Your task to perform on an android device: Add "razer kraken" to the cart on ebay Image 0: 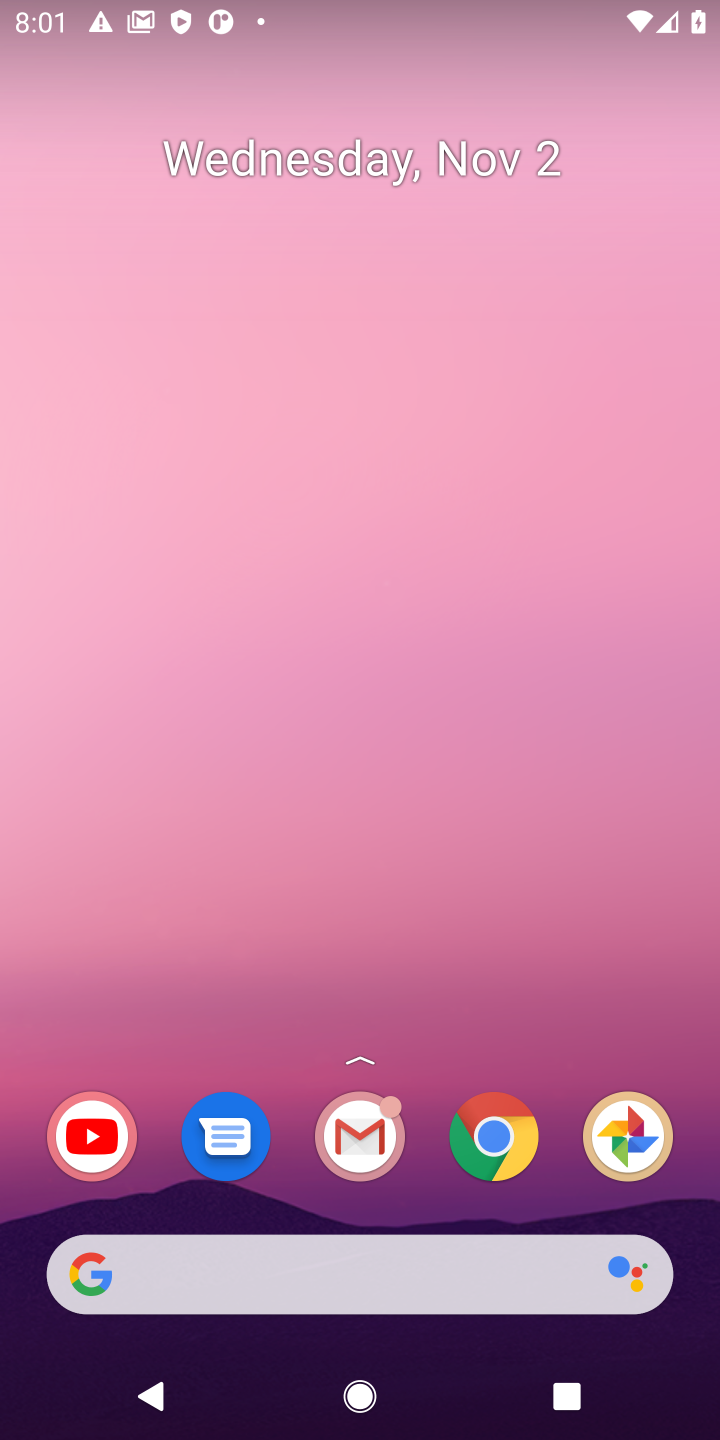
Step 0: drag from (199, 1217) to (266, 71)
Your task to perform on an android device: Add "razer kraken" to the cart on ebay Image 1: 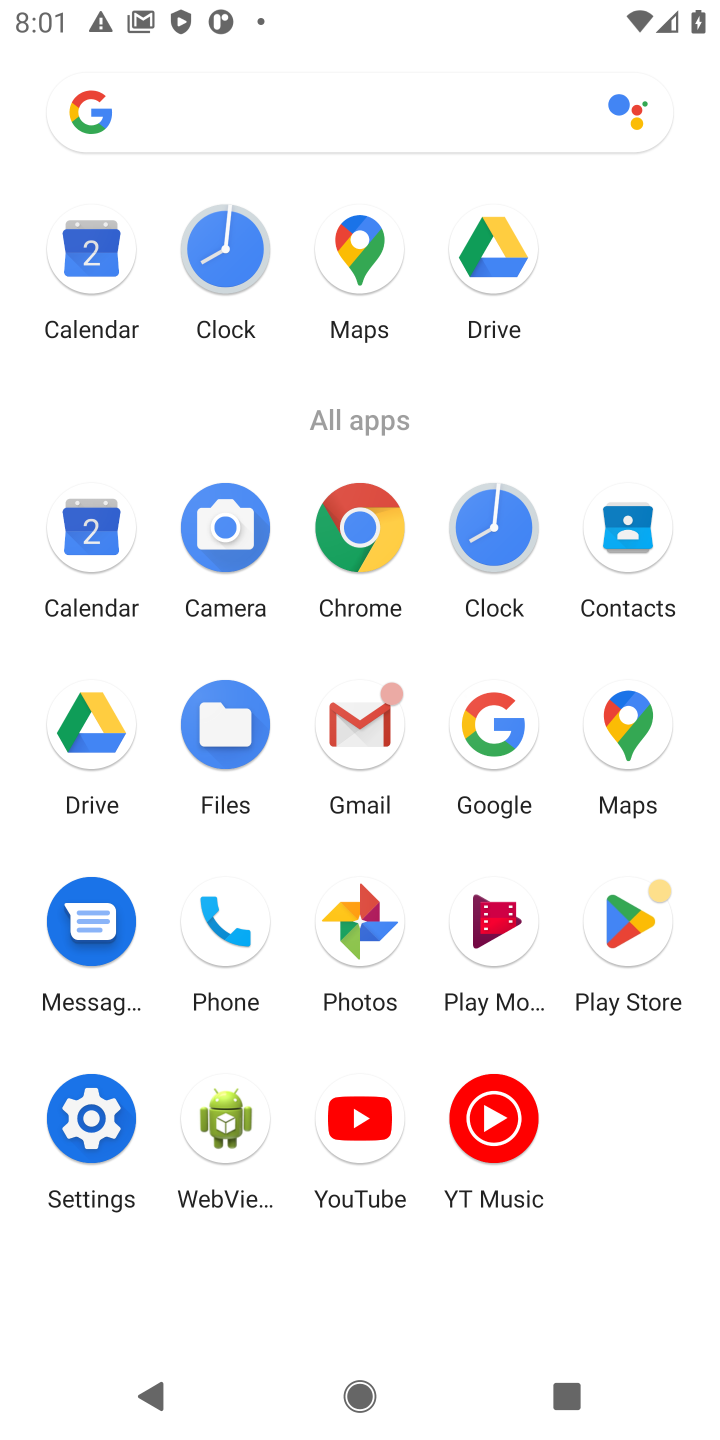
Step 1: click (496, 718)
Your task to perform on an android device: Add "razer kraken" to the cart on ebay Image 2: 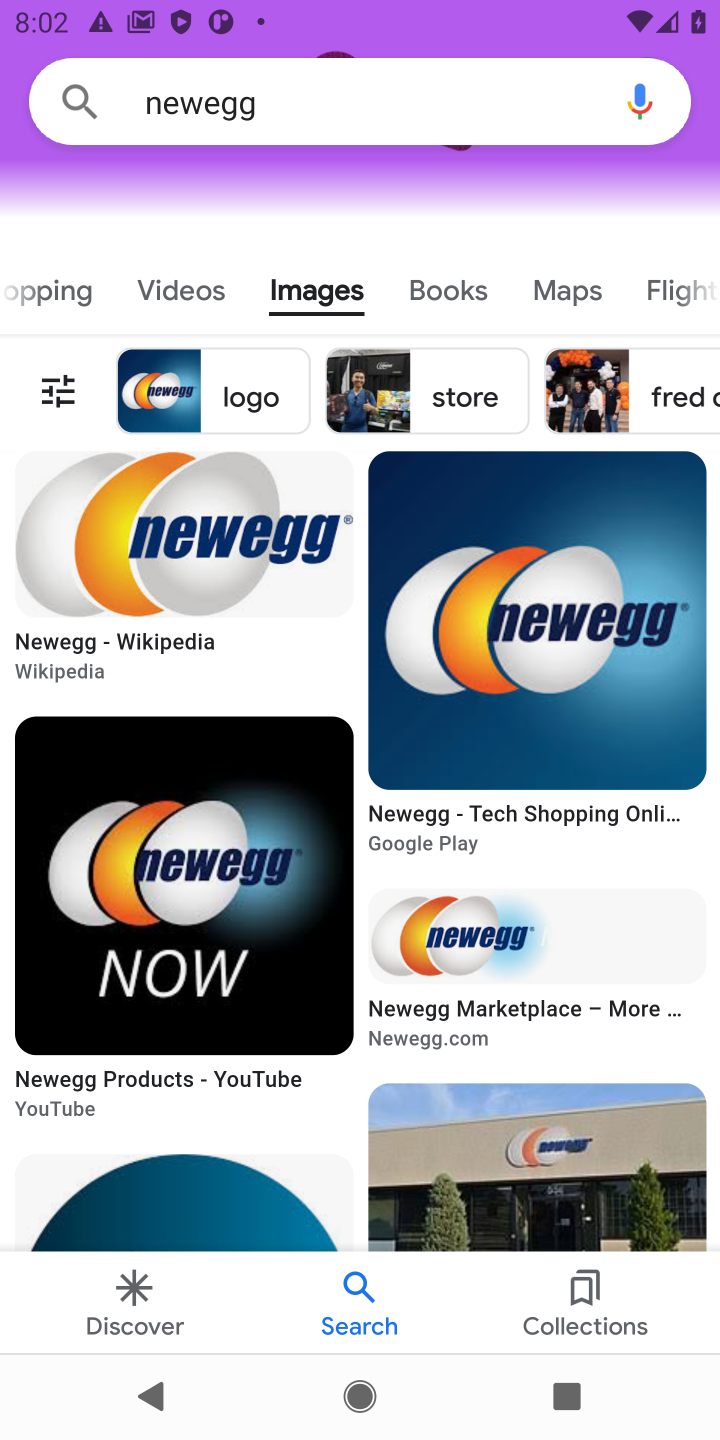
Step 2: click (392, 69)
Your task to perform on an android device: Add "razer kraken" to the cart on ebay Image 3: 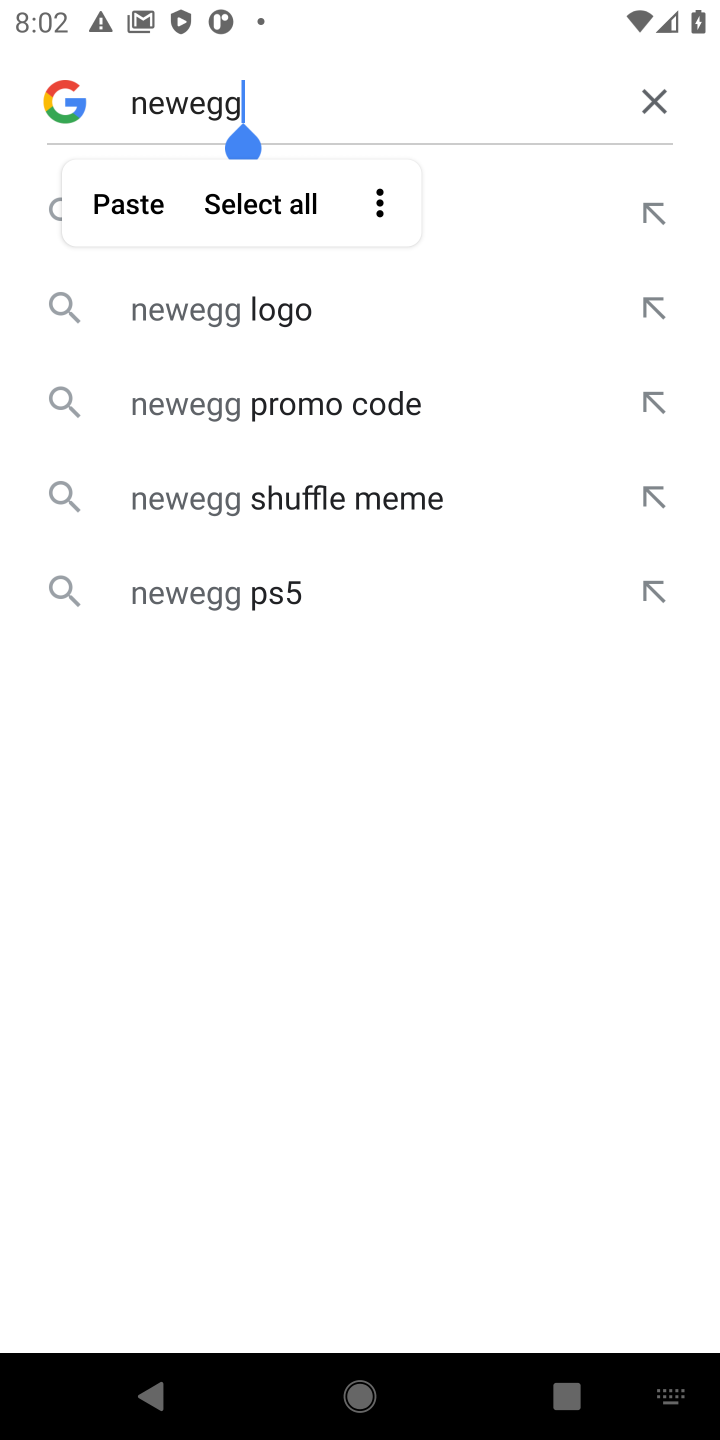
Step 3: click (648, 94)
Your task to perform on an android device: Add "razer kraken" to the cart on ebay Image 4: 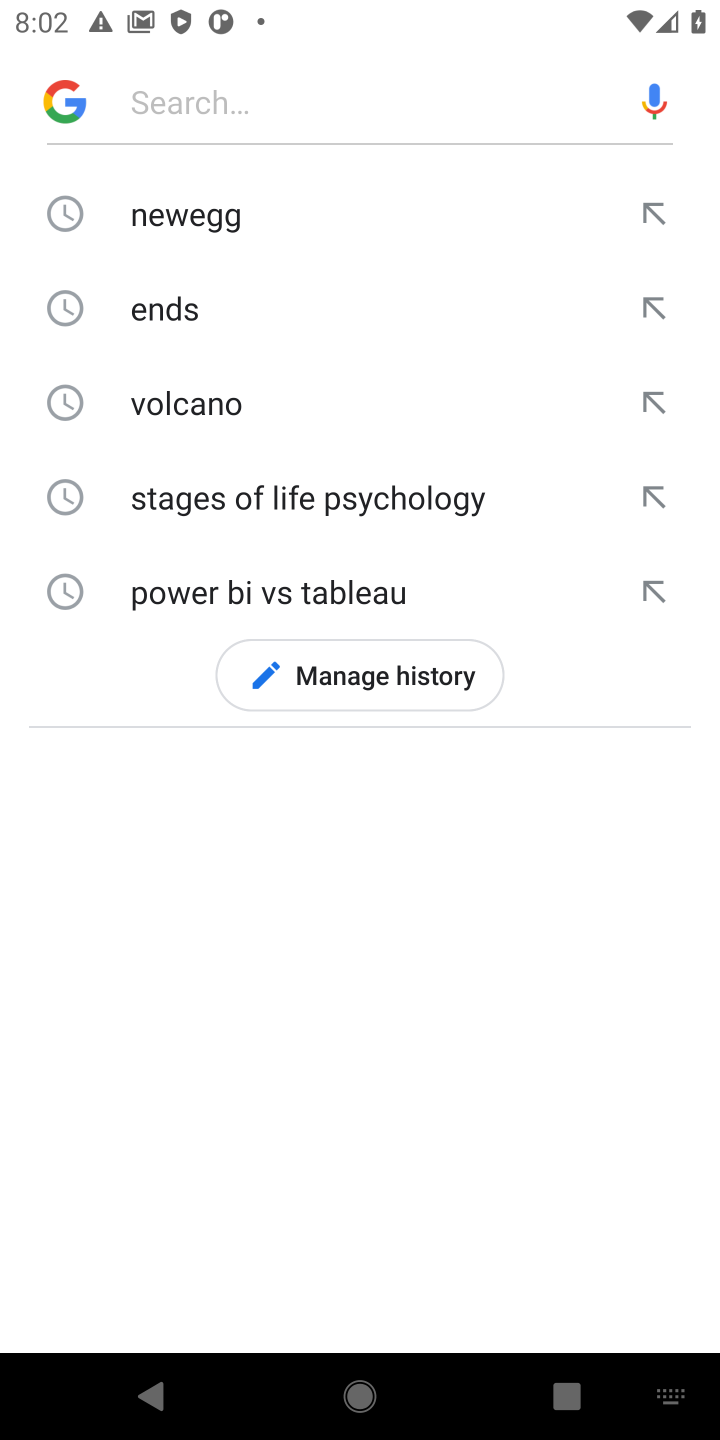
Step 4: click (254, 83)
Your task to perform on an android device: Add "razer kraken" to the cart on ebay Image 5: 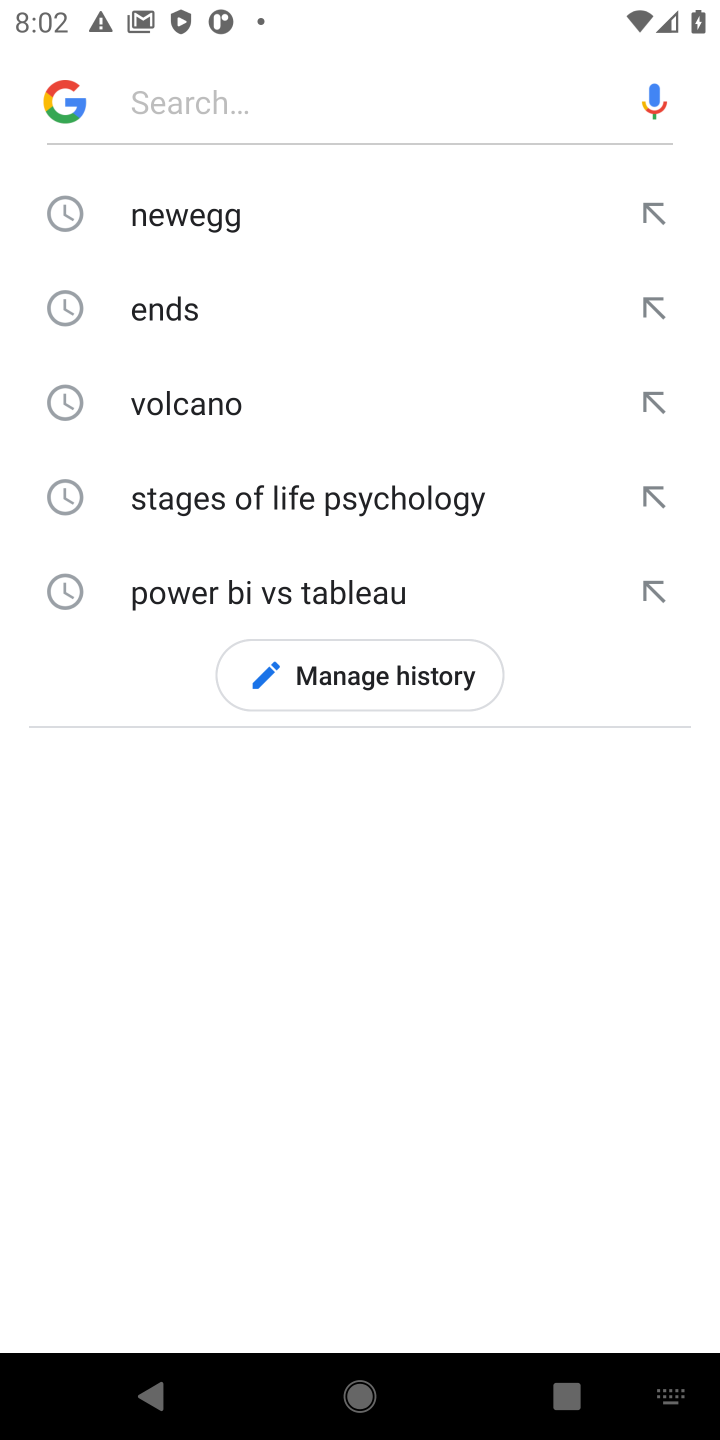
Step 5: type "ebay "
Your task to perform on an android device: Add "razer kraken" to the cart on ebay Image 6: 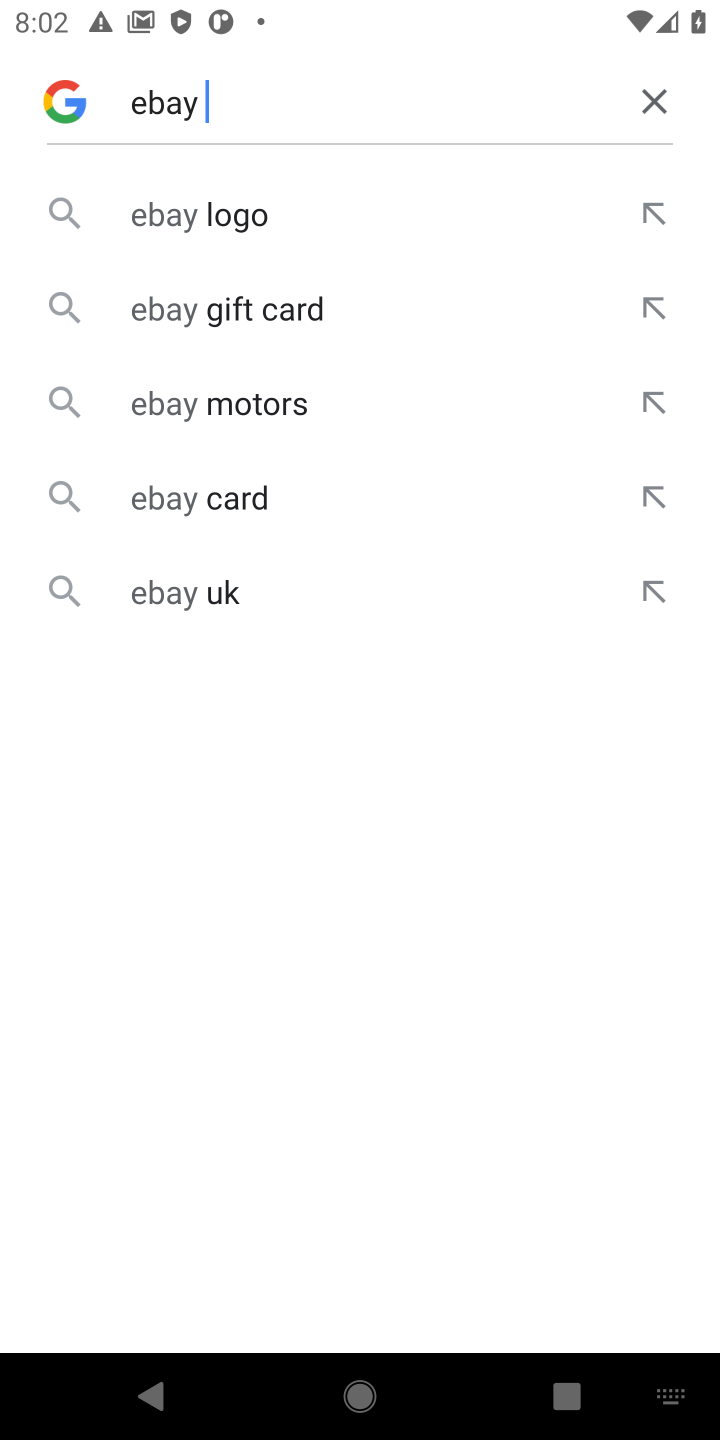
Step 6: click (206, 605)
Your task to perform on an android device: Add "razer kraken" to the cart on ebay Image 7: 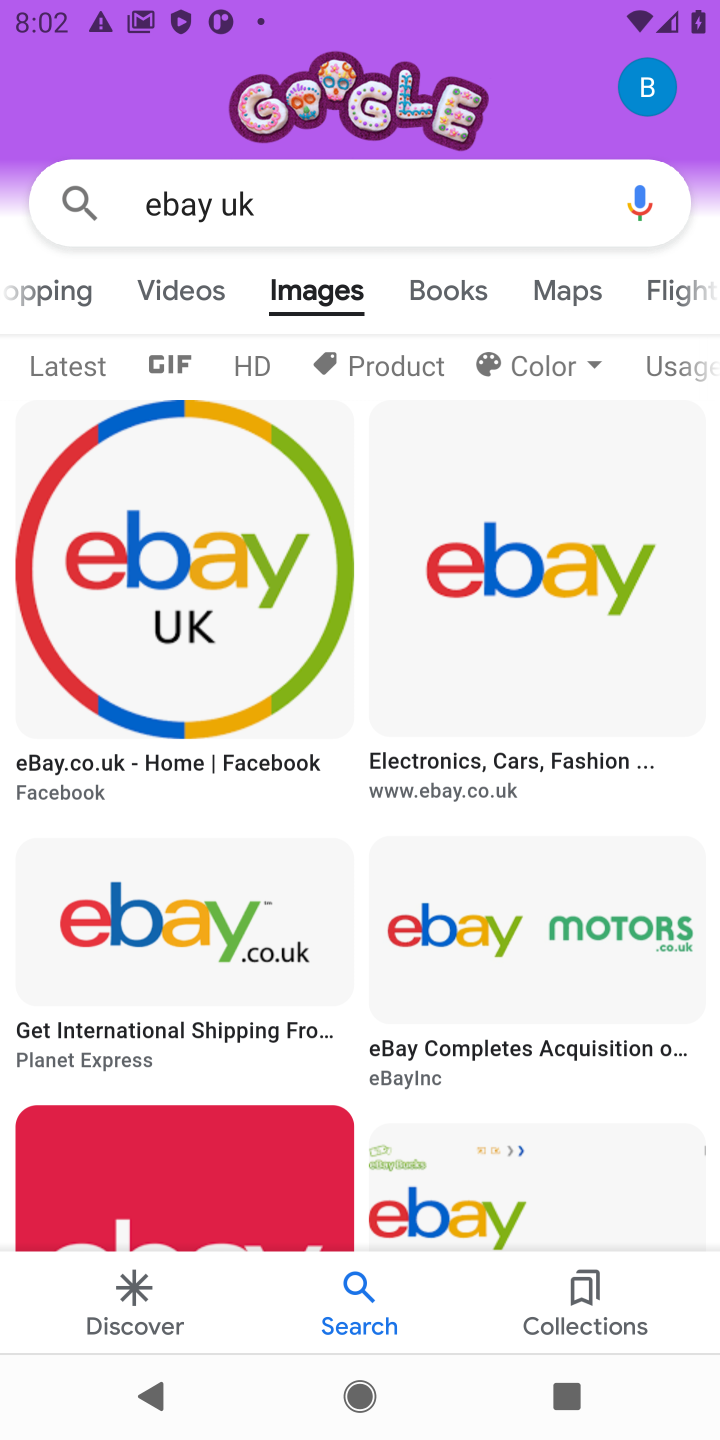
Step 7: click (23, 300)
Your task to perform on an android device: Add "razer kraken" to the cart on ebay Image 8: 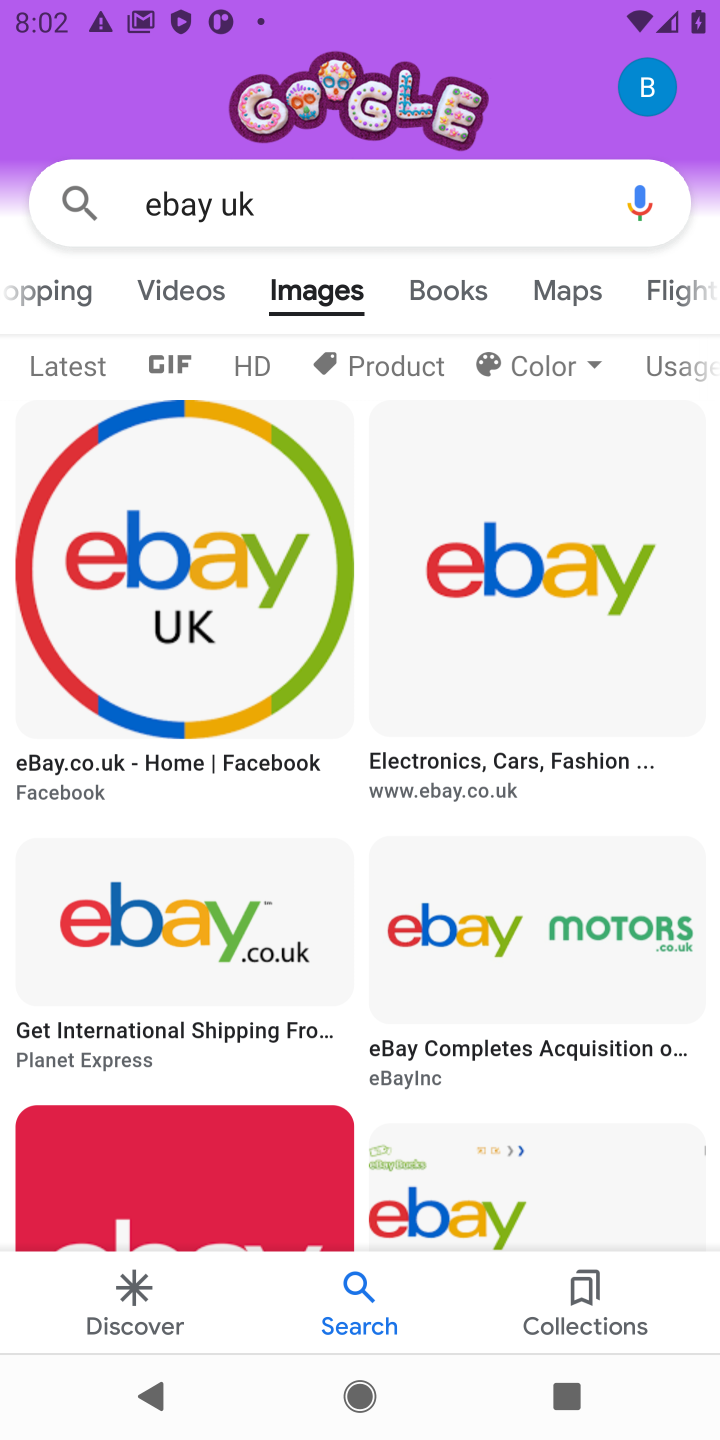
Step 8: drag from (69, 297) to (559, 325)
Your task to perform on an android device: Add "razer kraken" to the cart on ebay Image 9: 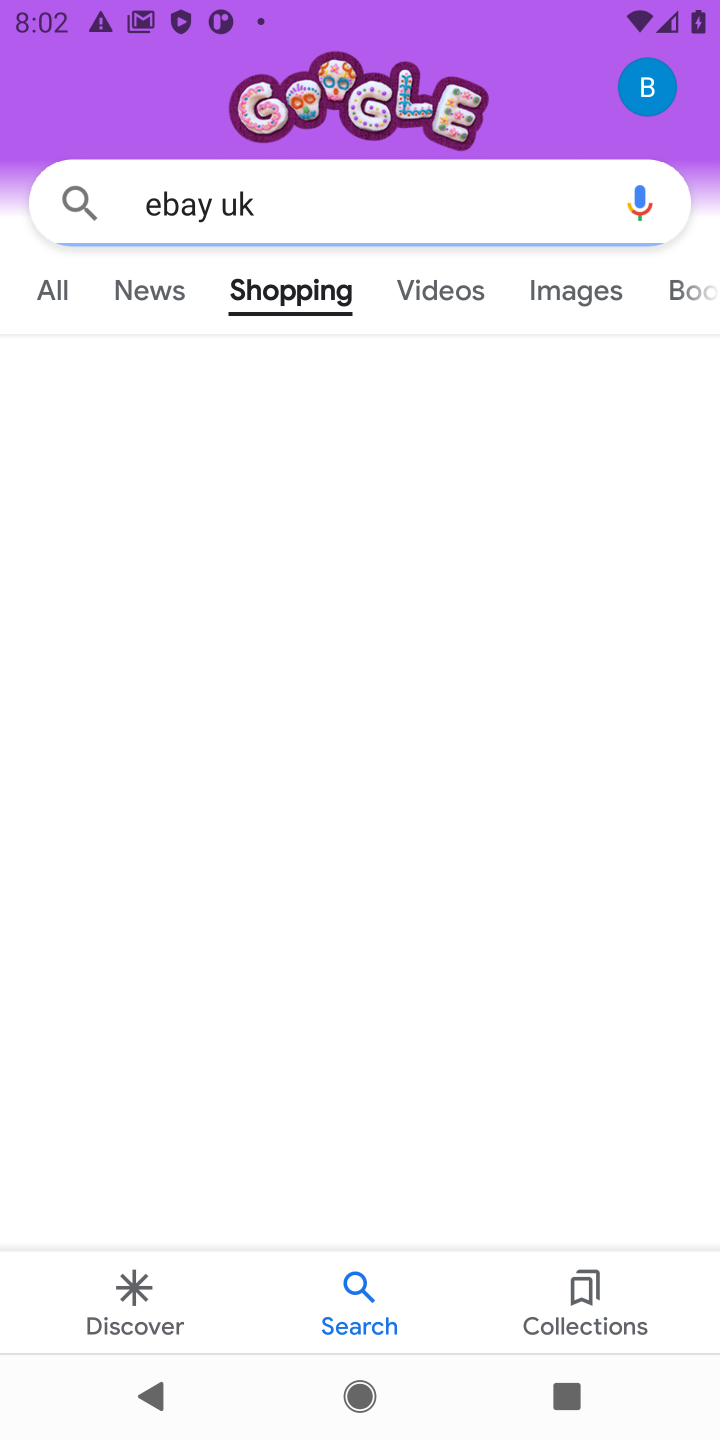
Step 9: click (59, 278)
Your task to perform on an android device: Add "razer kraken" to the cart on ebay Image 10: 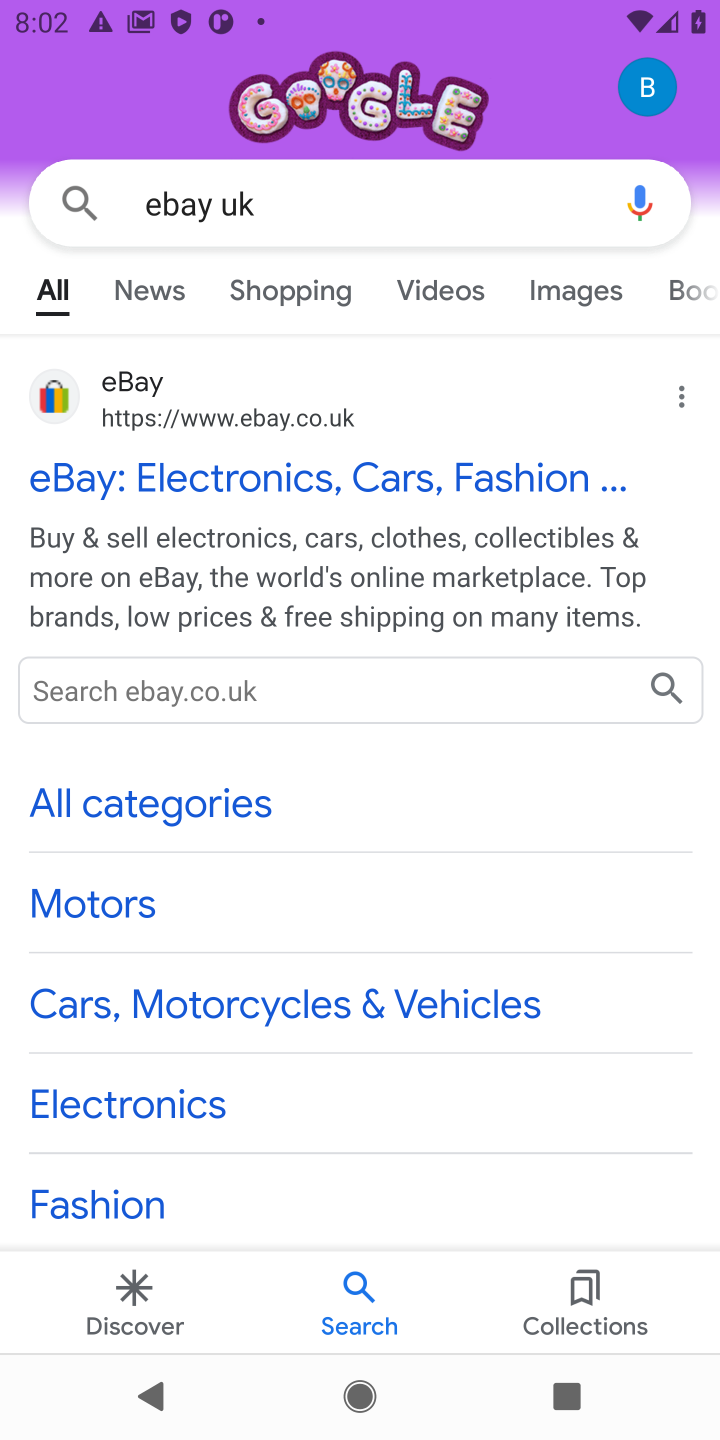
Step 10: click (57, 395)
Your task to perform on an android device: Add "razer kraken" to the cart on ebay Image 11: 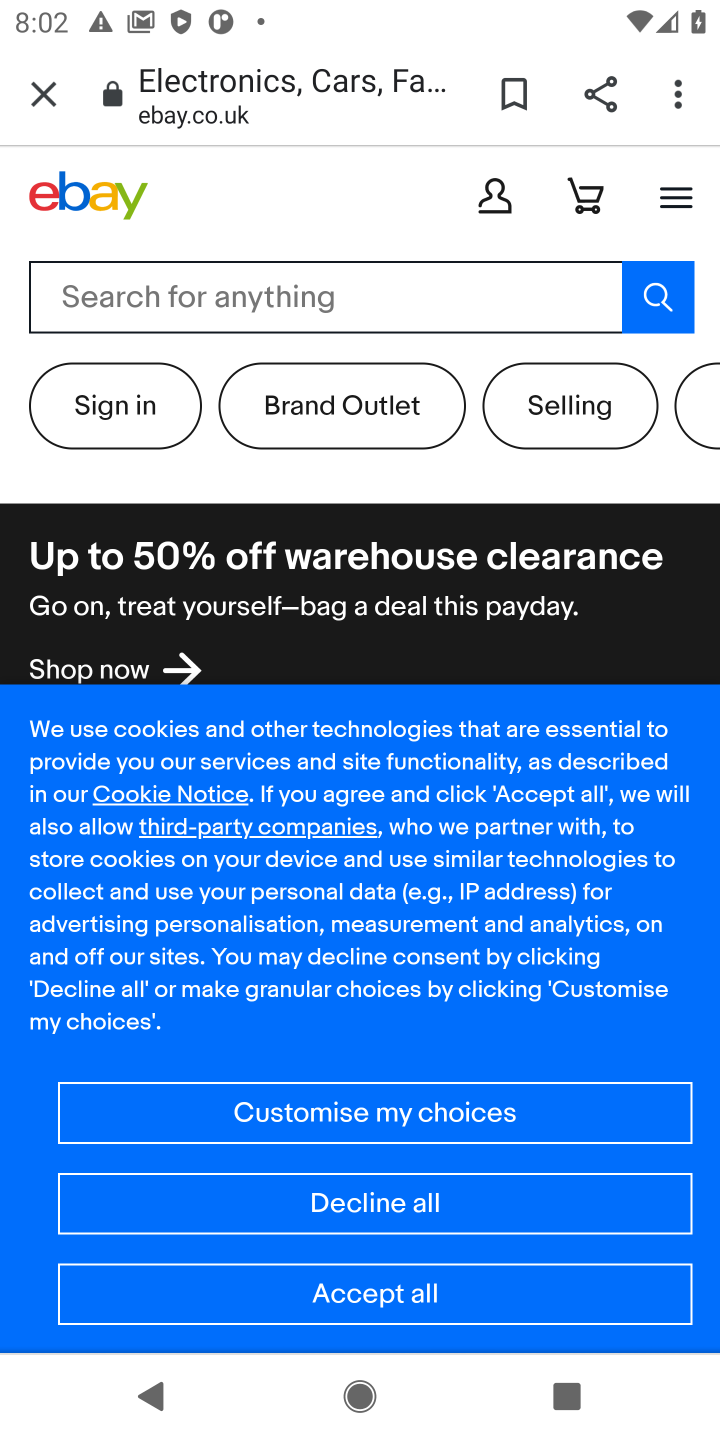
Step 11: click (347, 1298)
Your task to perform on an android device: Add "razer kraken" to the cart on ebay Image 12: 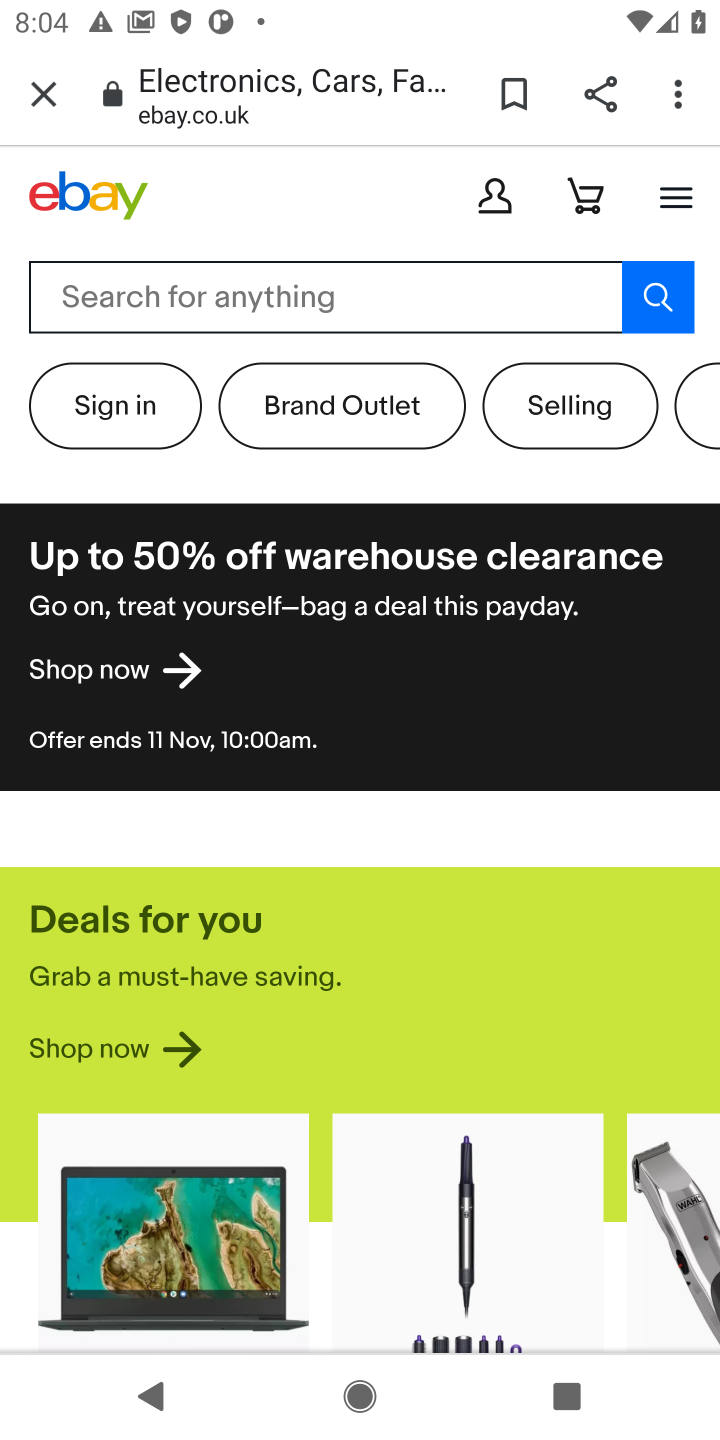
Step 12: click (447, 277)
Your task to perform on an android device: Add "razer kraken" to the cart on ebay Image 13: 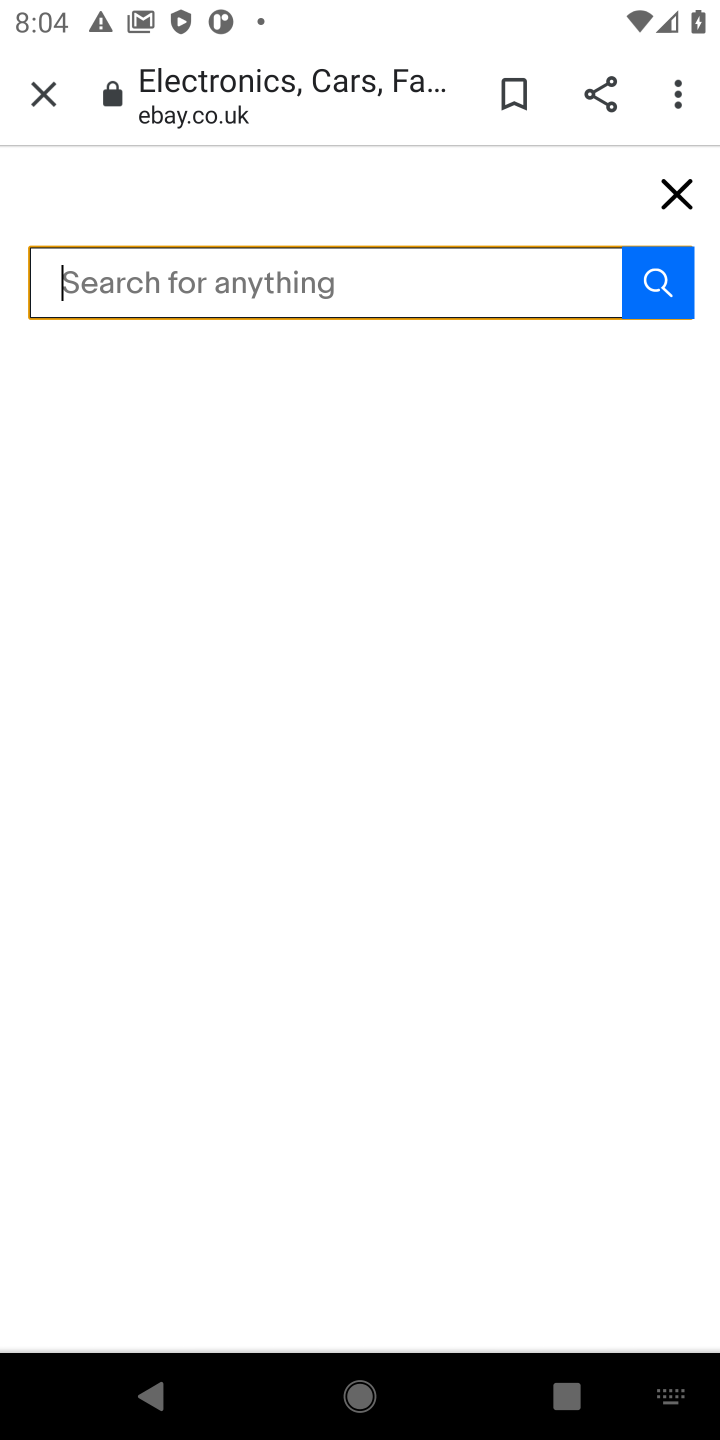
Step 13: type "razer kraken"  "
Your task to perform on an android device: Add "razer kraken" to the cart on ebay Image 14: 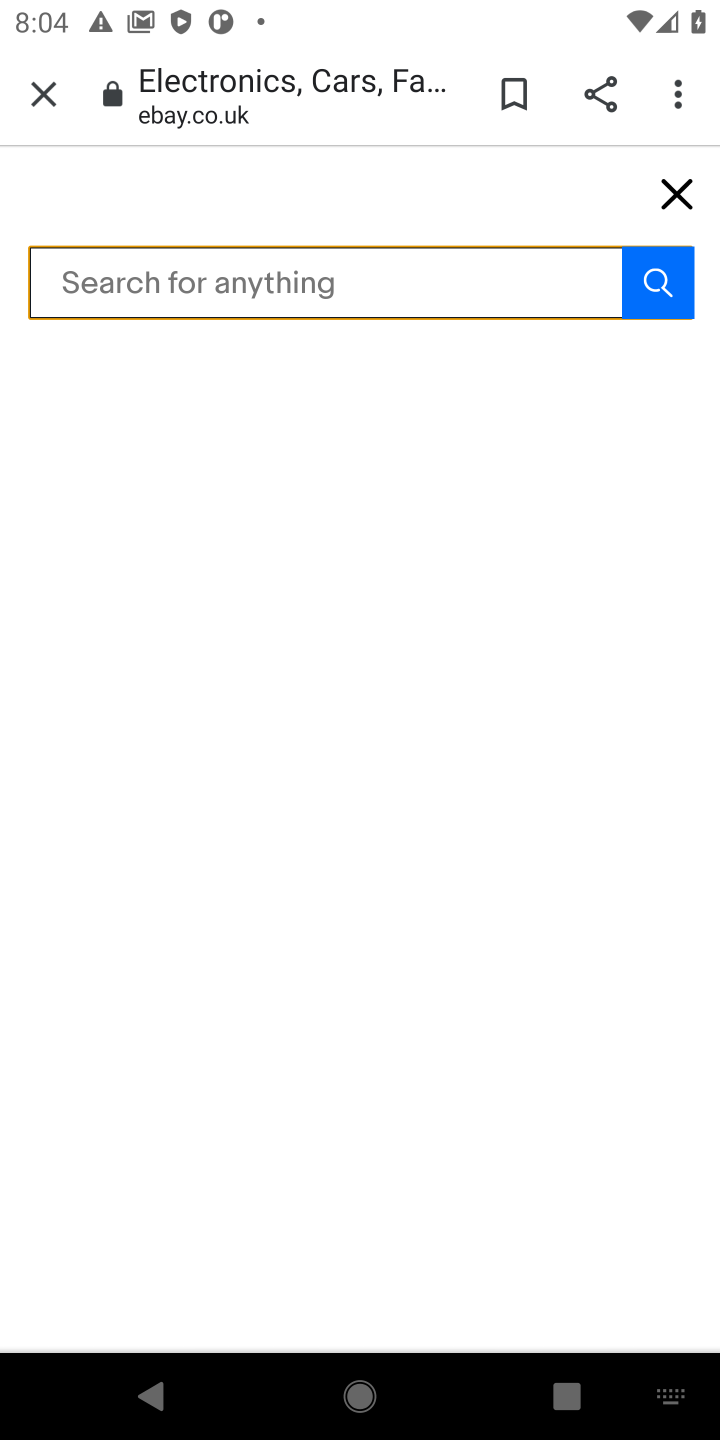
Step 14: click (507, 276)
Your task to perform on an android device: Add "razer kraken" to the cart on ebay Image 15: 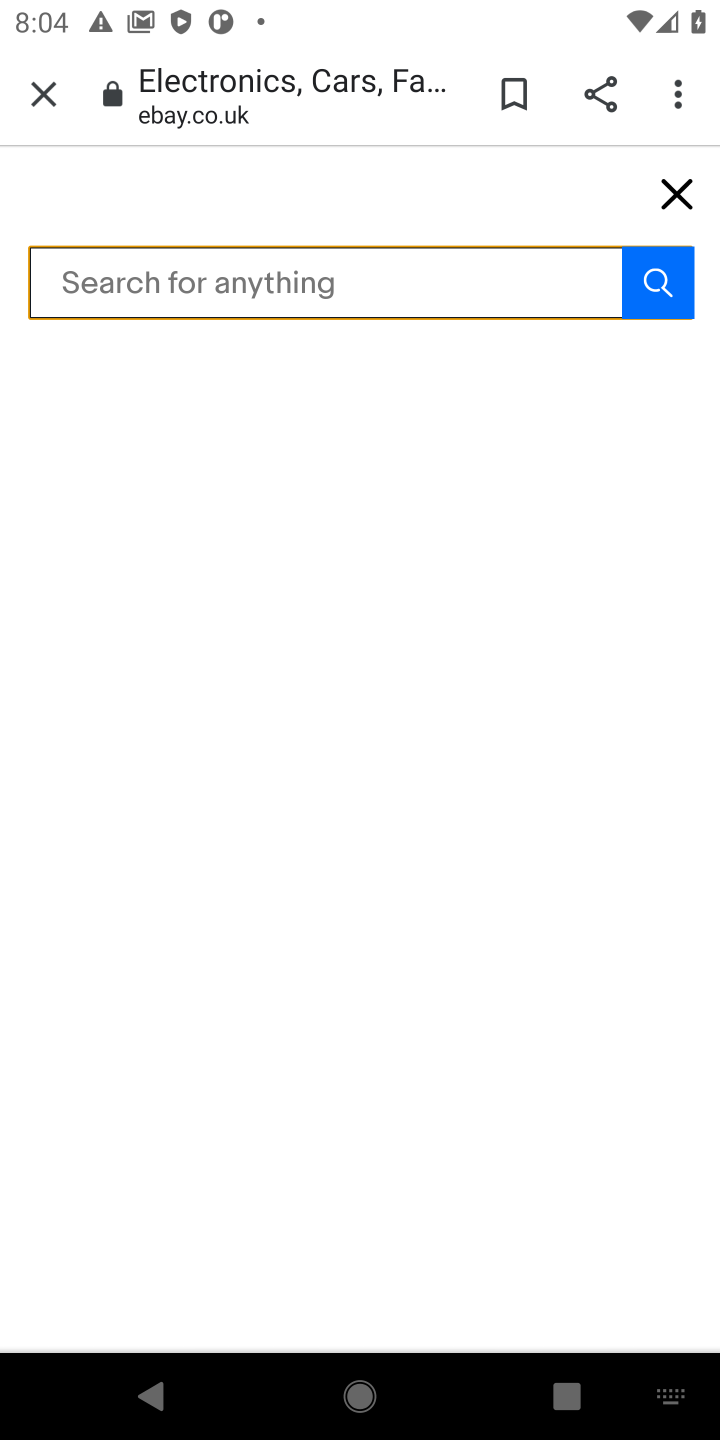
Step 15: click (402, 261)
Your task to perform on an android device: Add "razer kraken" to the cart on ebay Image 16: 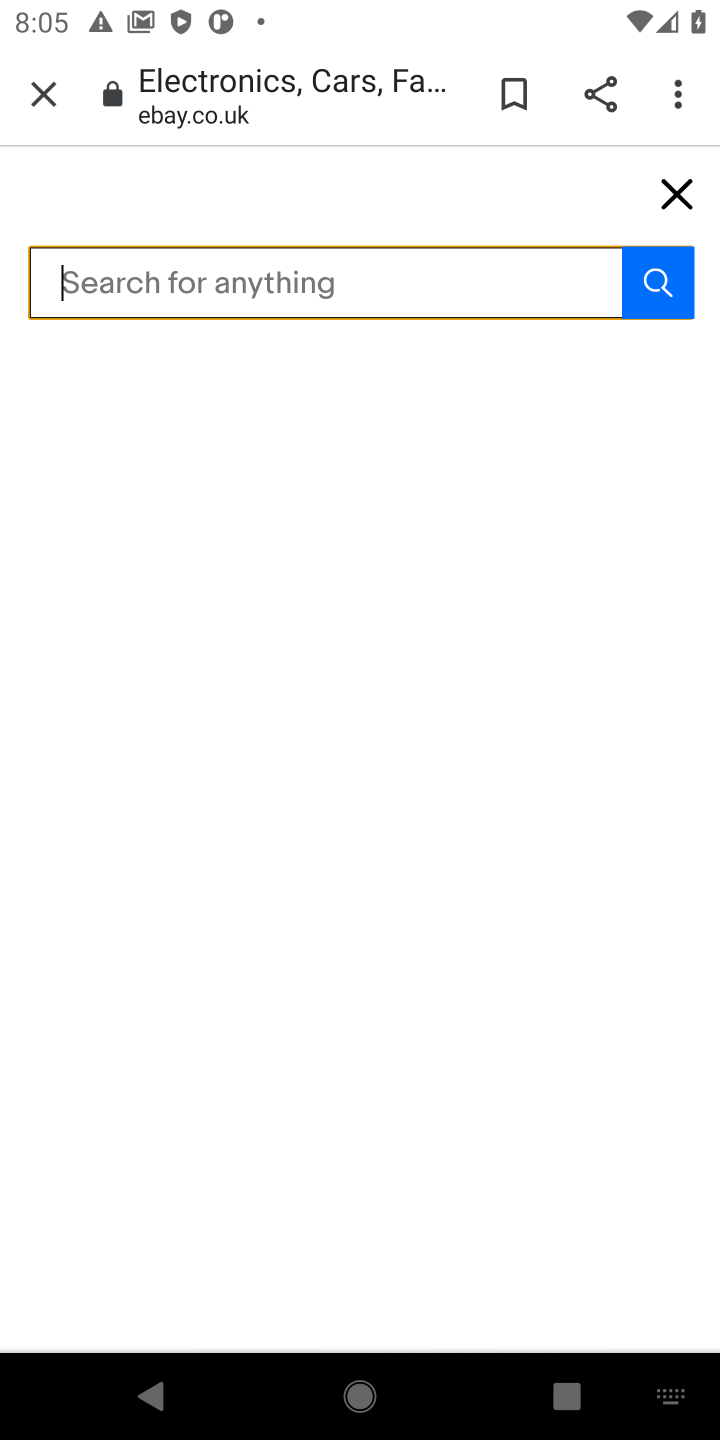
Step 16: type "razer kraken"
Your task to perform on an android device: Add "razer kraken" to the cart on ebay Image 17: 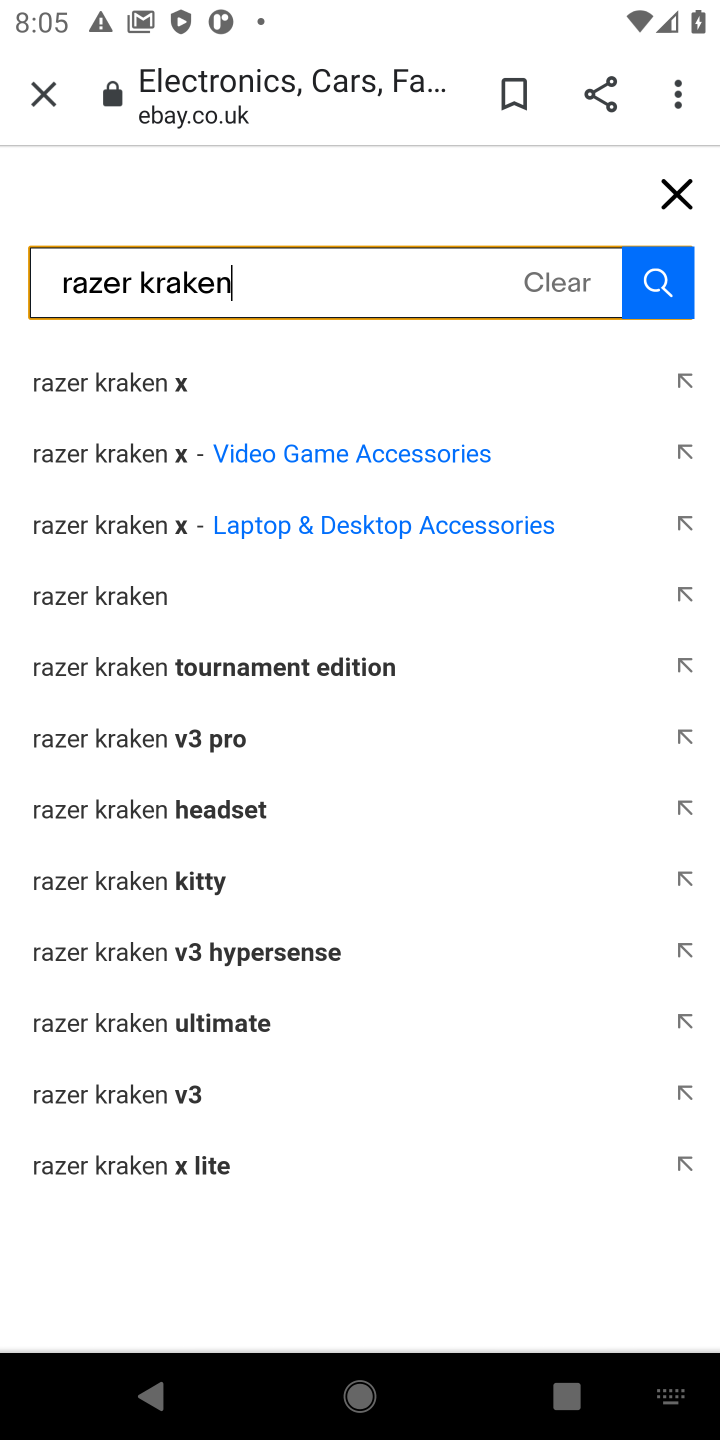
Step 17: click (147, 382)
Your task to perform on an android device: Add "razer kraken" to the cart on ebay Image 18: 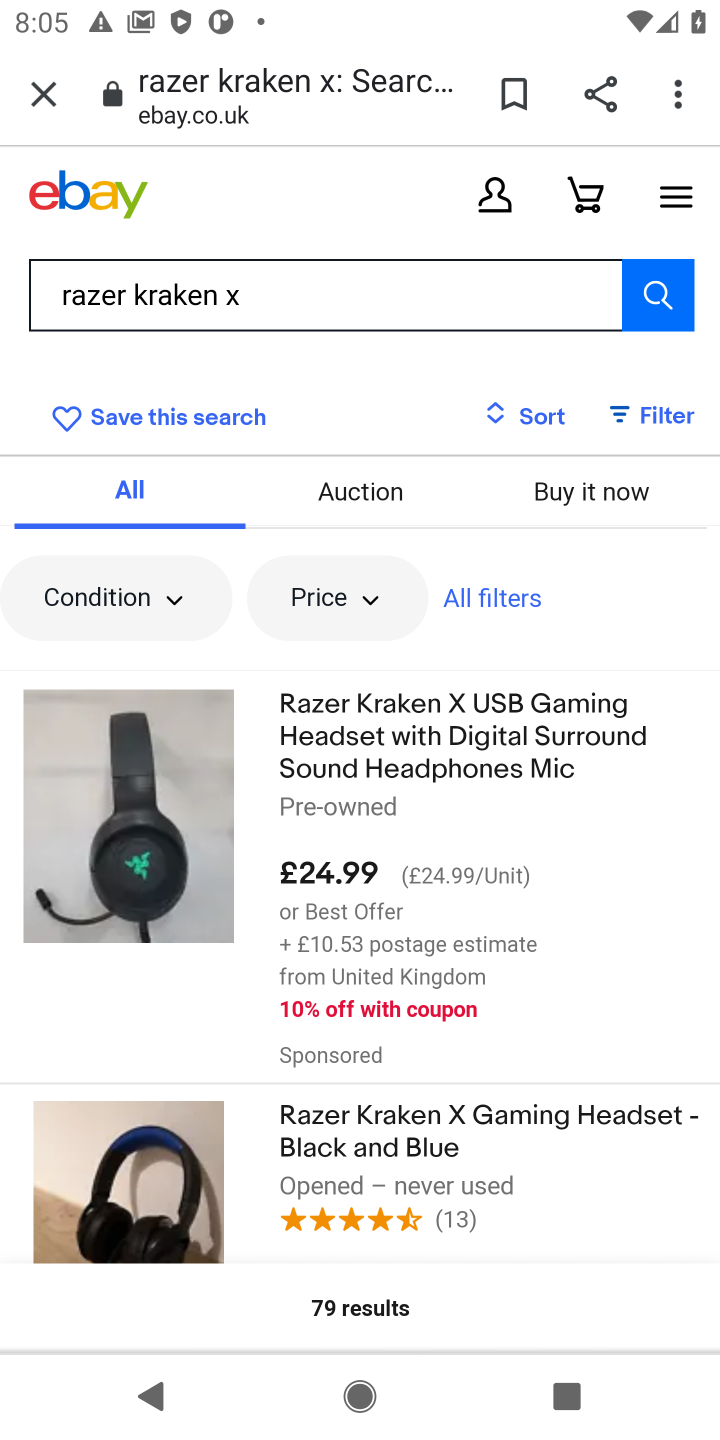
Step 18: click (378, 716)
Your task to perform on an android device: Add "razer kraken" to the cart on ebay Image 19: 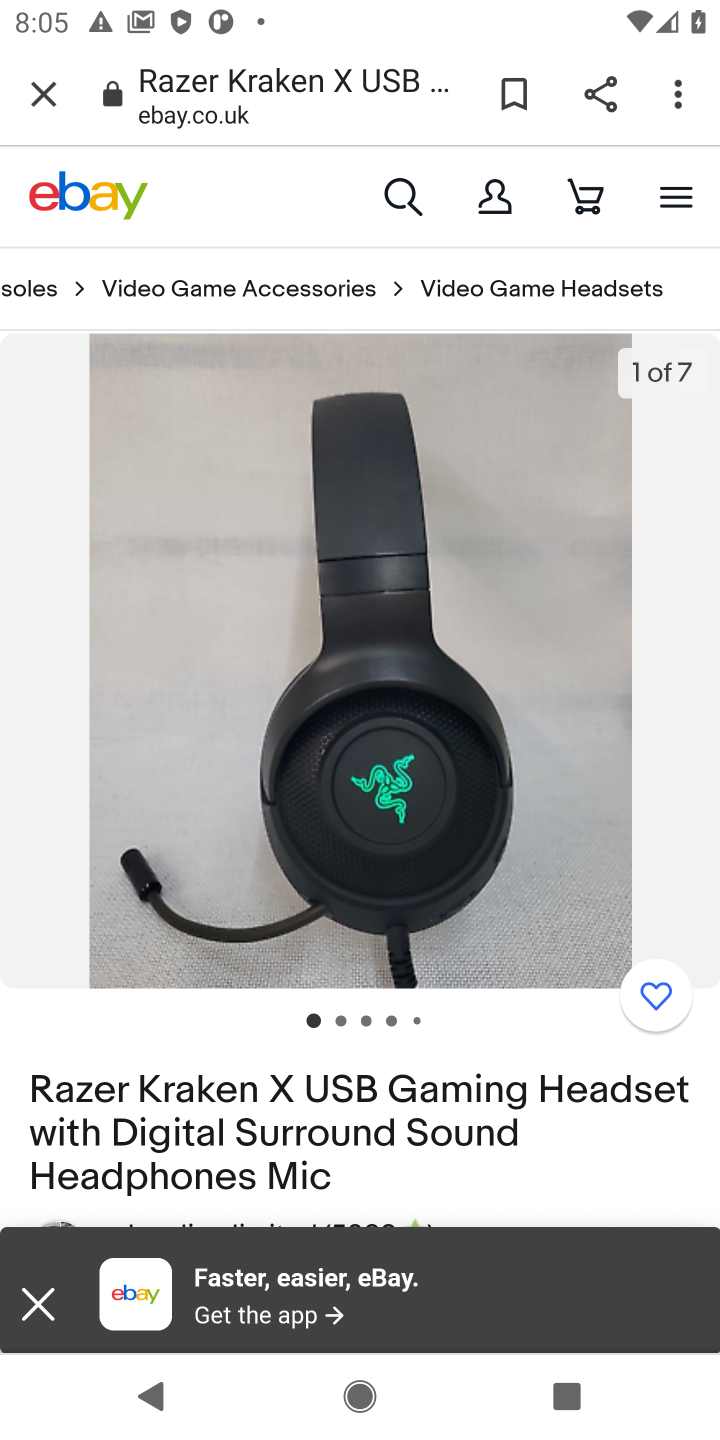
Step 19: click (44, 1299)
Your task to perform on an android device: Add "razer kraken" to the cart on ebay Image 20: 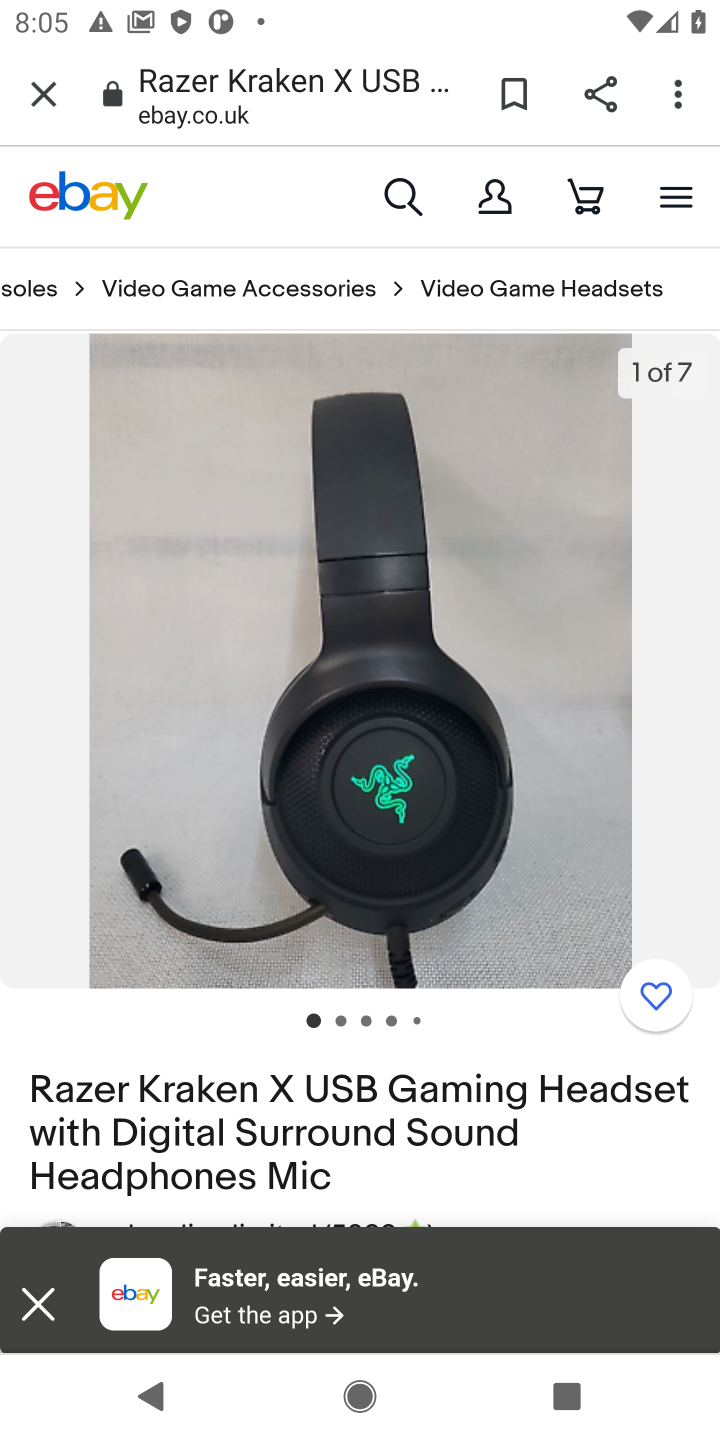
Step 20: click (55, 1309)
Your task to perform on an android device: Add "razer kraken" to the cart on ebay Image 21: 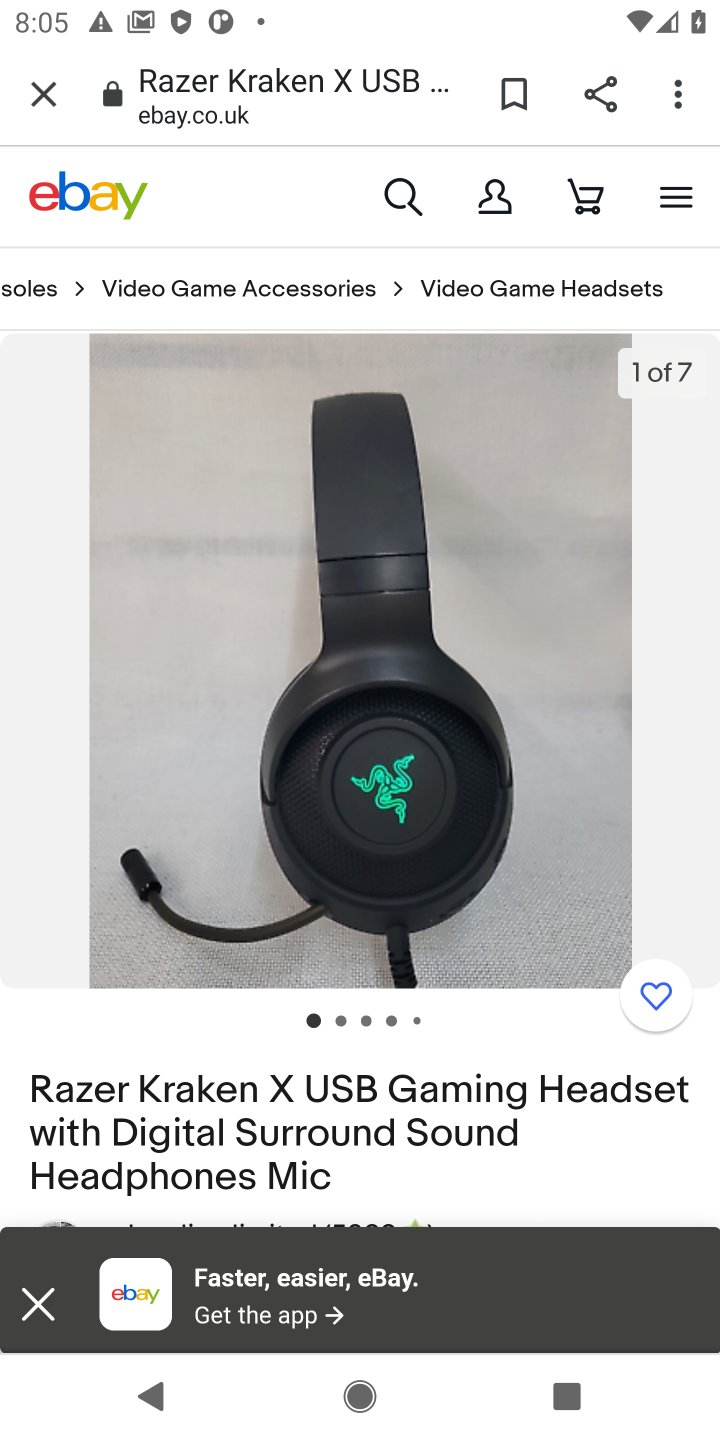
Step 21: drag from (182, 1150) to (339, 421)
Your task to perform on an android device: Add "razer kraken" to the cart on ebay Image 22: 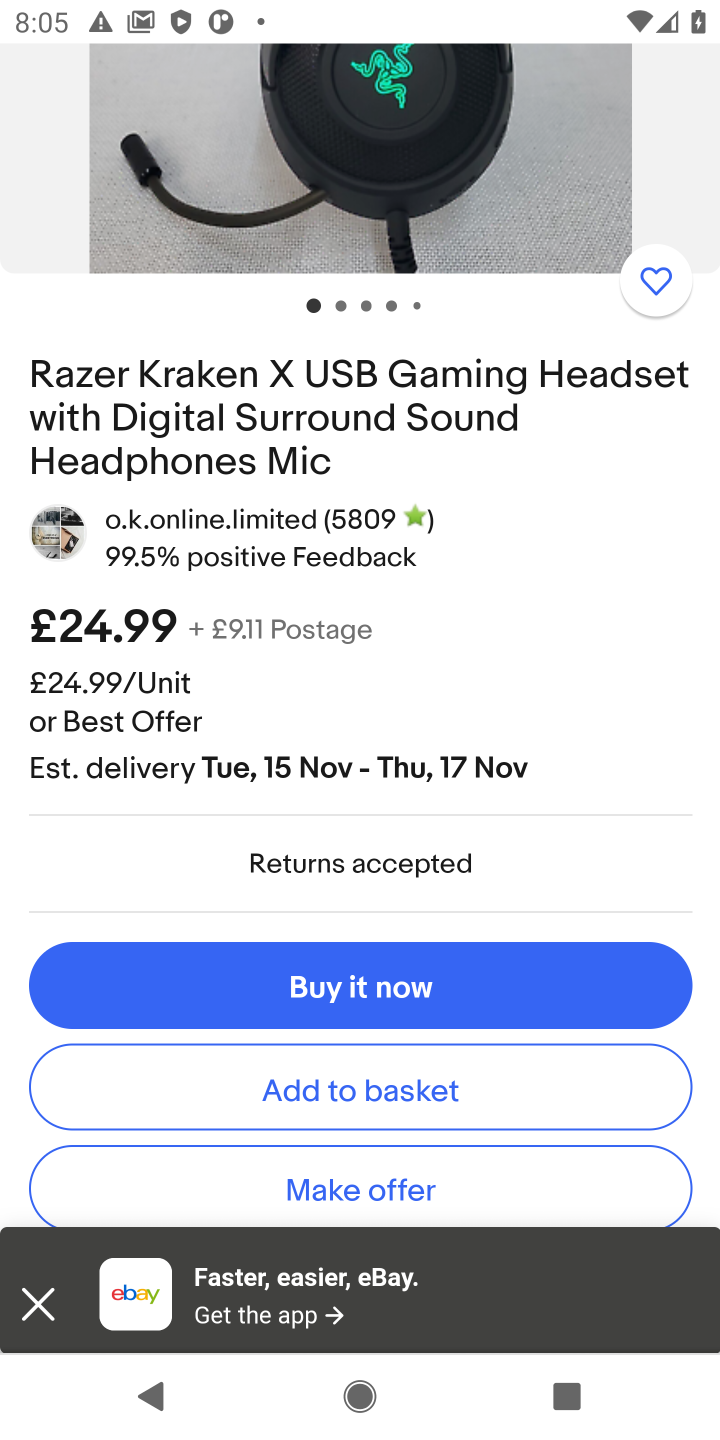
Step 22: click (371, 1087)
Your task to perform on an android device: Add "razer kraken" to the cart on ebay Image 23: 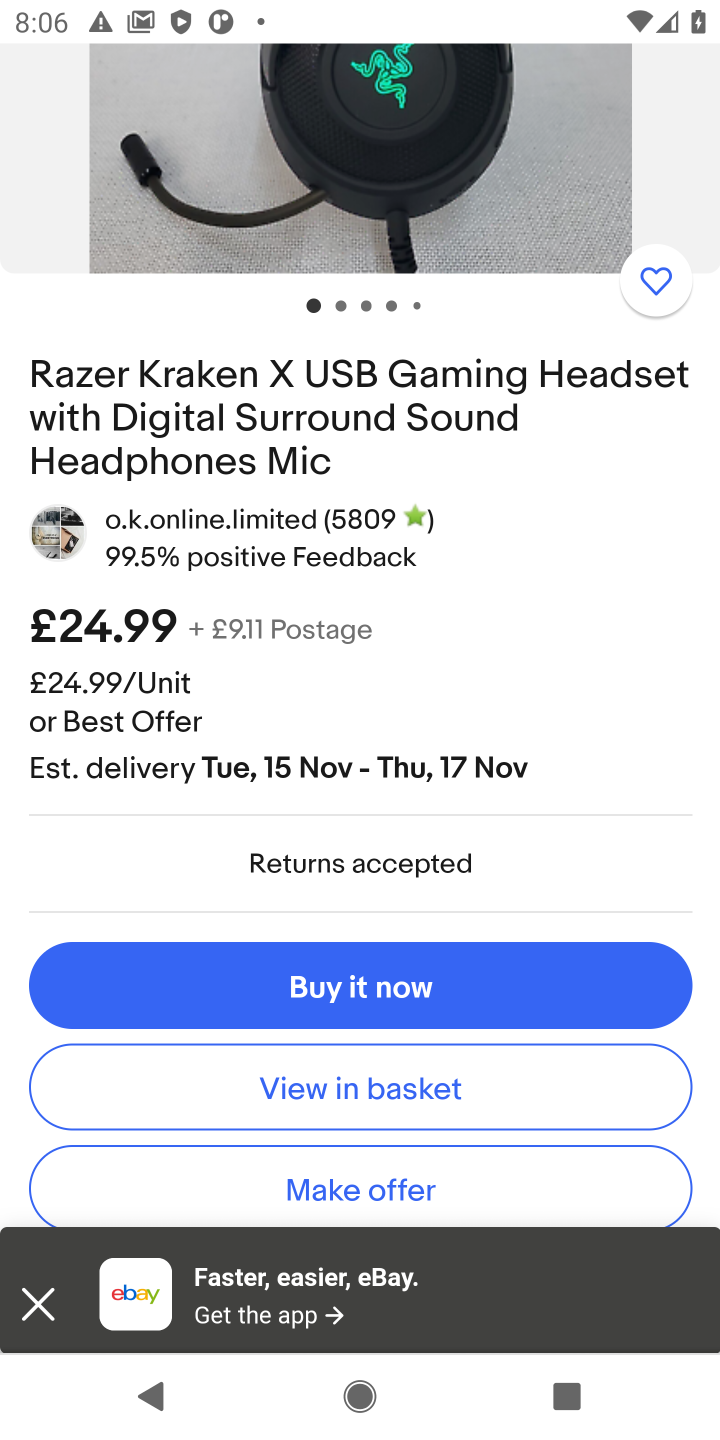
Step 23: click (371, 1087)
Your task to perform on an android device: Add "razer kraken" to the cart on ebay Image 24: 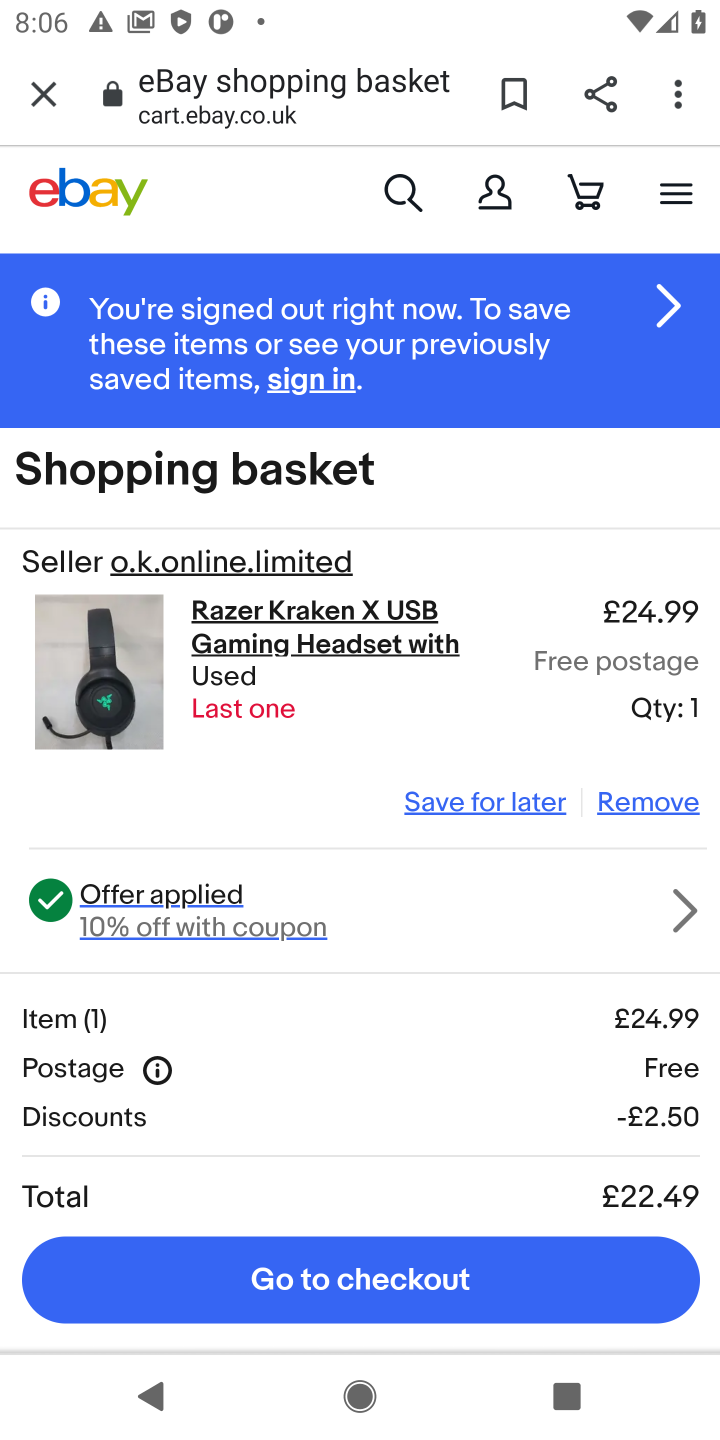
Step 24: task complete